Your task to perform on an android device: install app "Skype" Image 0: 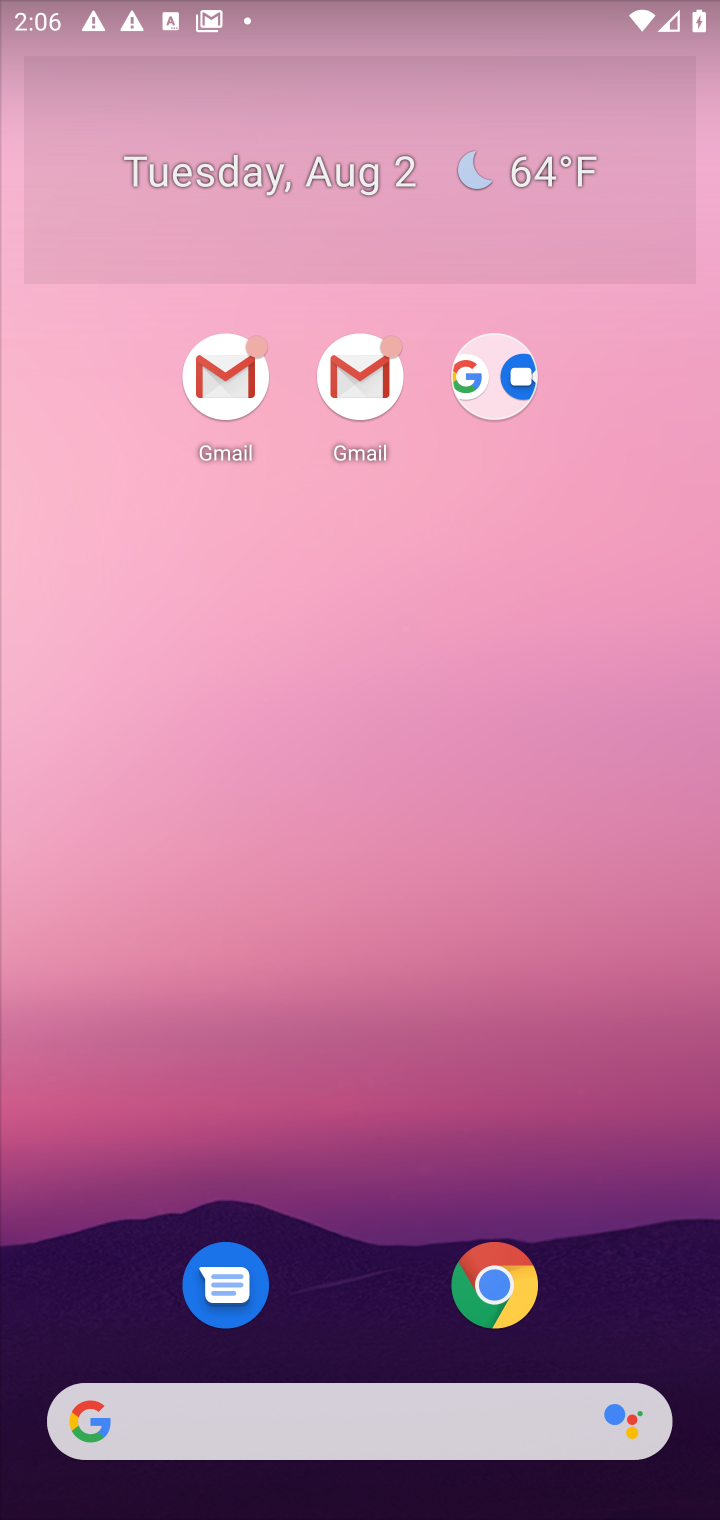
Step 0: drag from (546, 1130) to (555, 69)
Your task to perform on an android device: install app "Skype" Image 1: 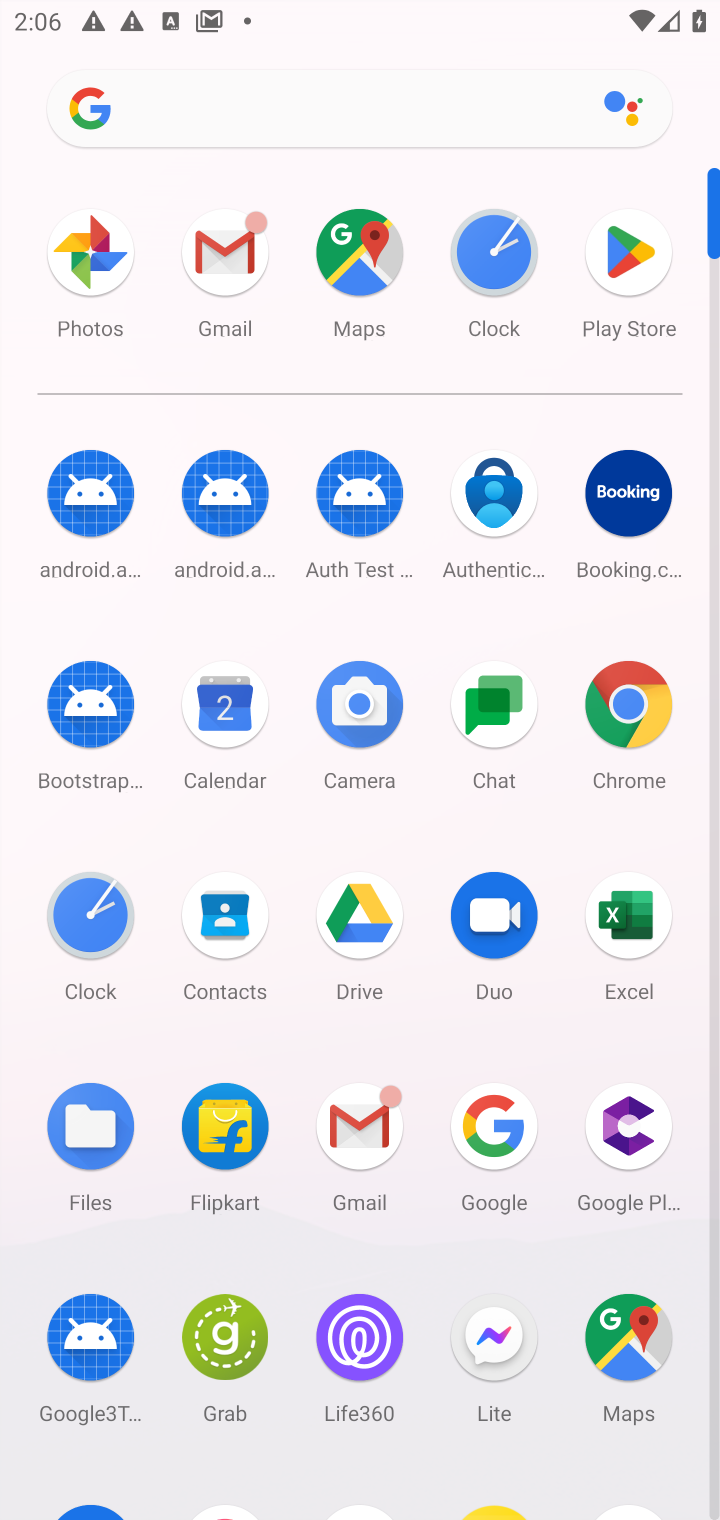
Step 1: drag from (434, 1176) to (428, 480)
Your task to perform on an android device: install app "Skype" Image 2: 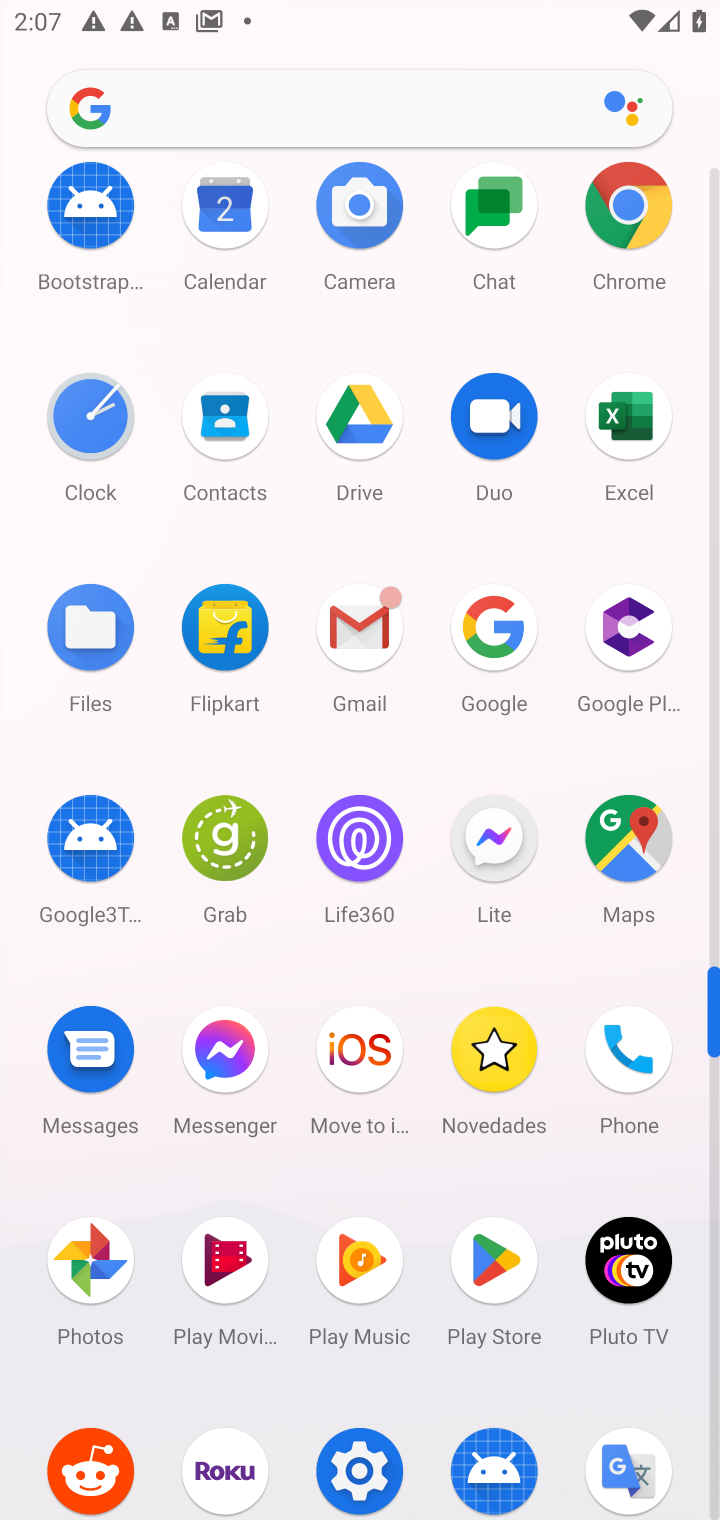
Step 2: click (508, 1250)
Your task to perform on an android device: install app "Skype" Image 3: 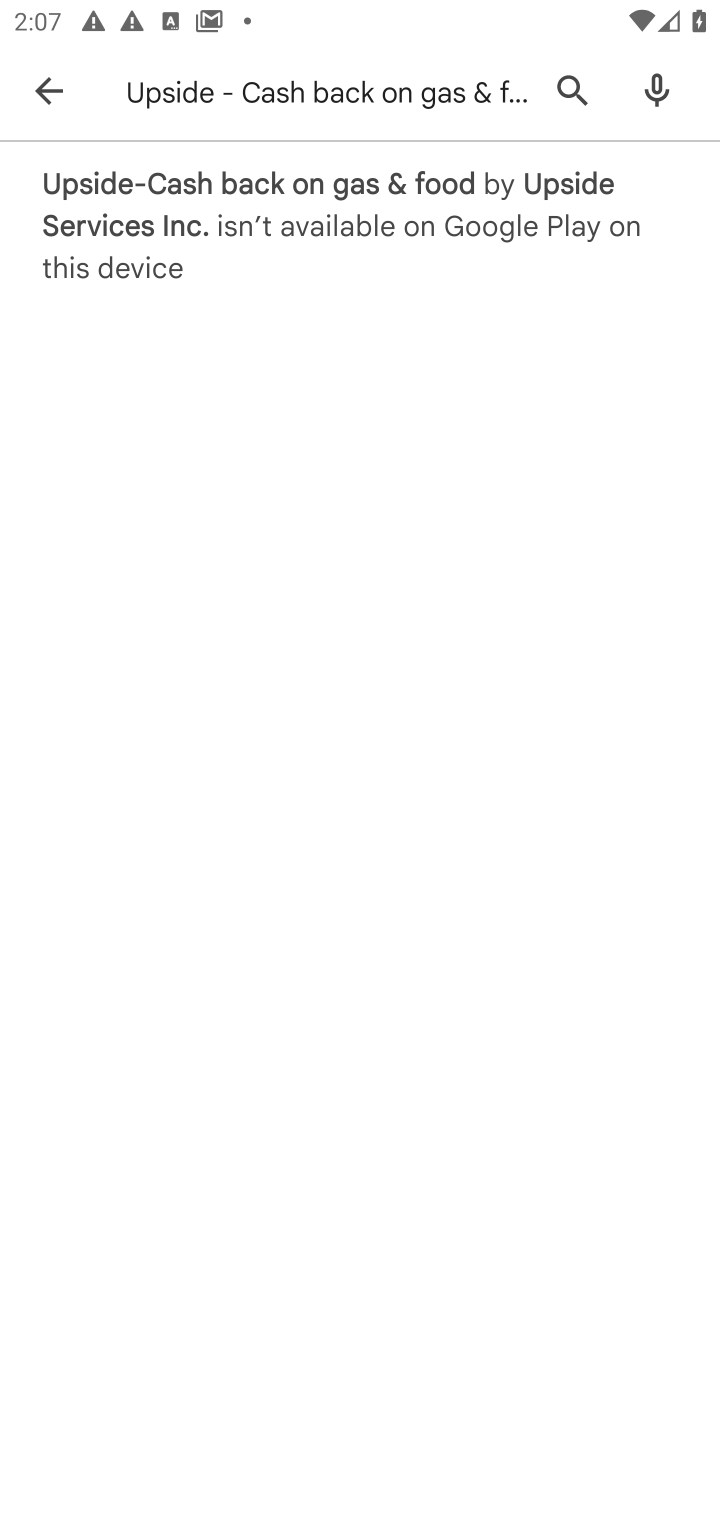
Step 3: click (311, 102)
Your task to perform on an android device: install app "Skype" Image 4: 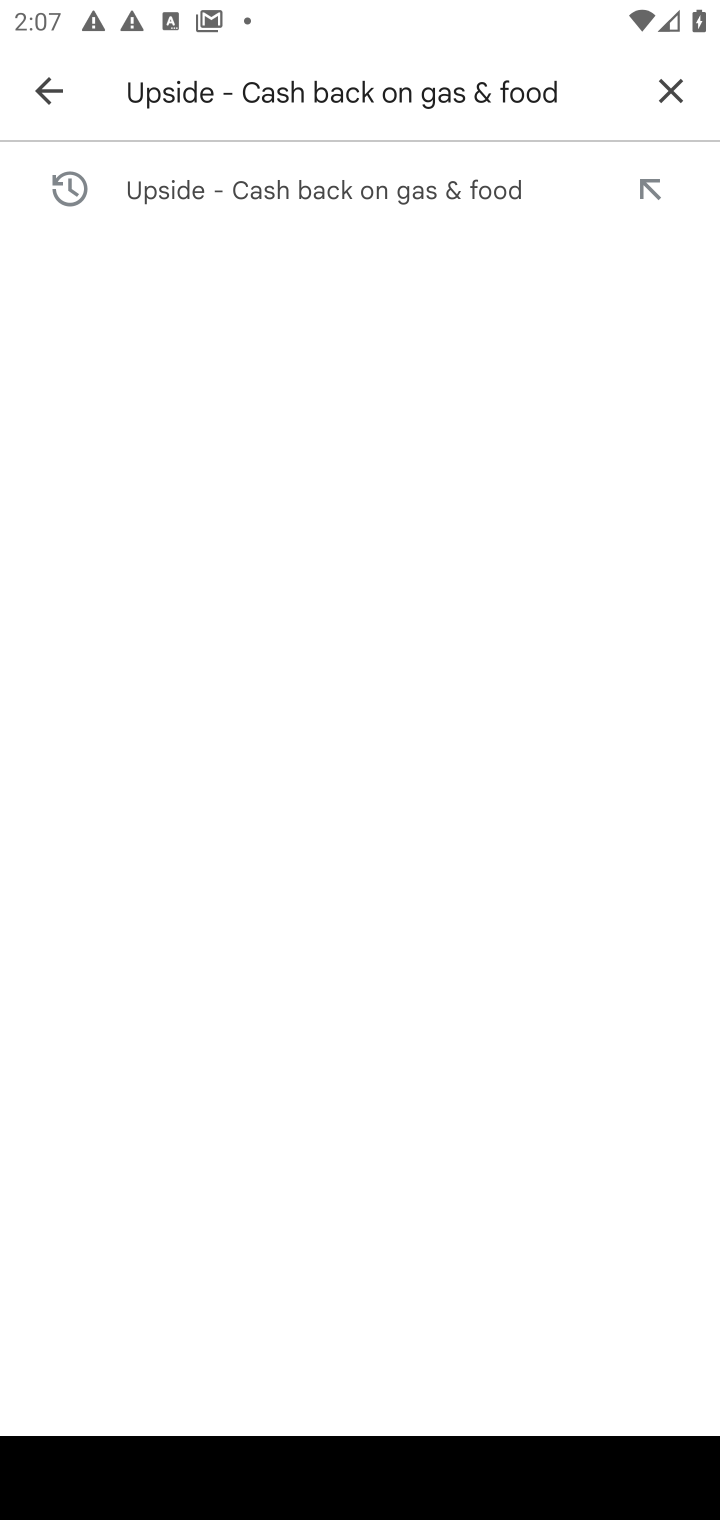
Step 4: click (679, 83)
Your task to perform on an android device: install app "Skype" Image 5: 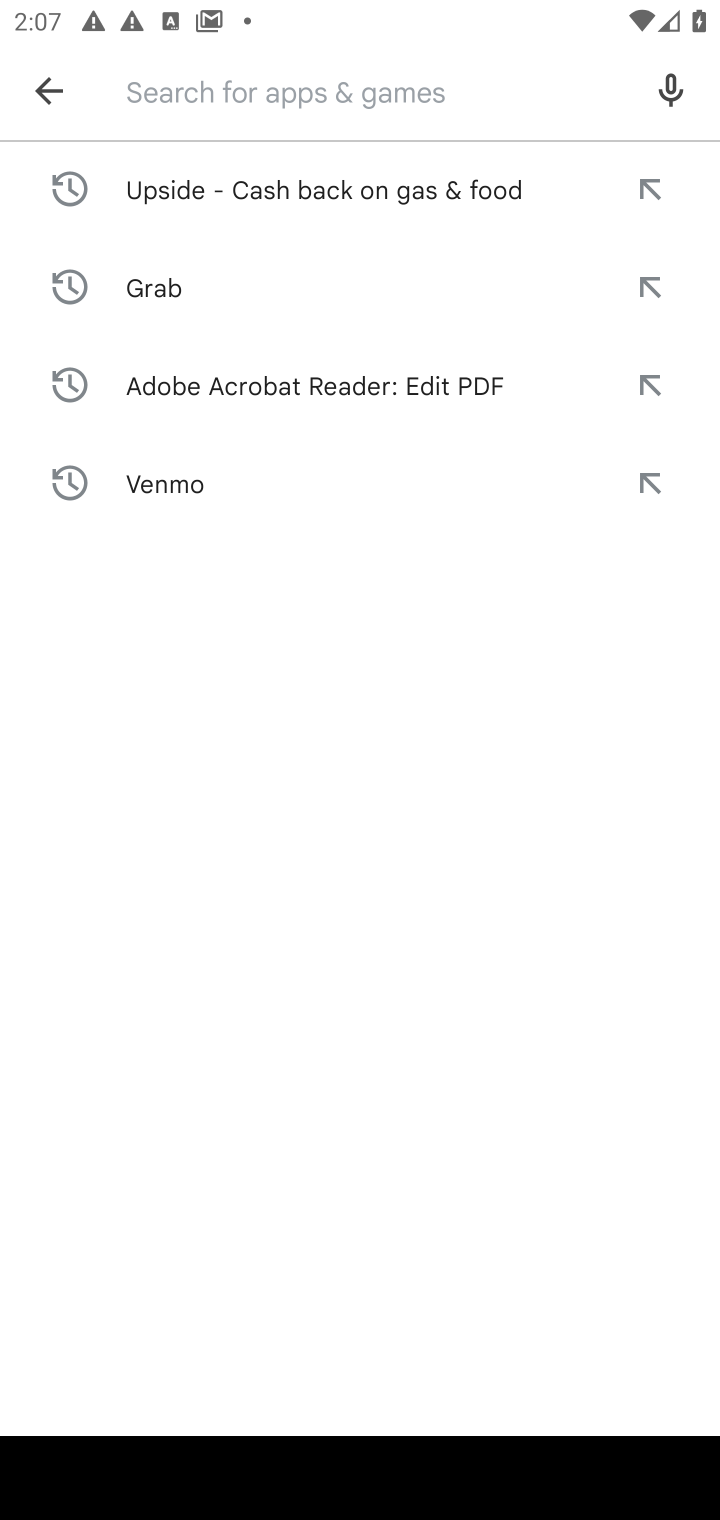
Step 5: type "Skype"
Your task to perform on an android device: install app "Skype" Image 6: 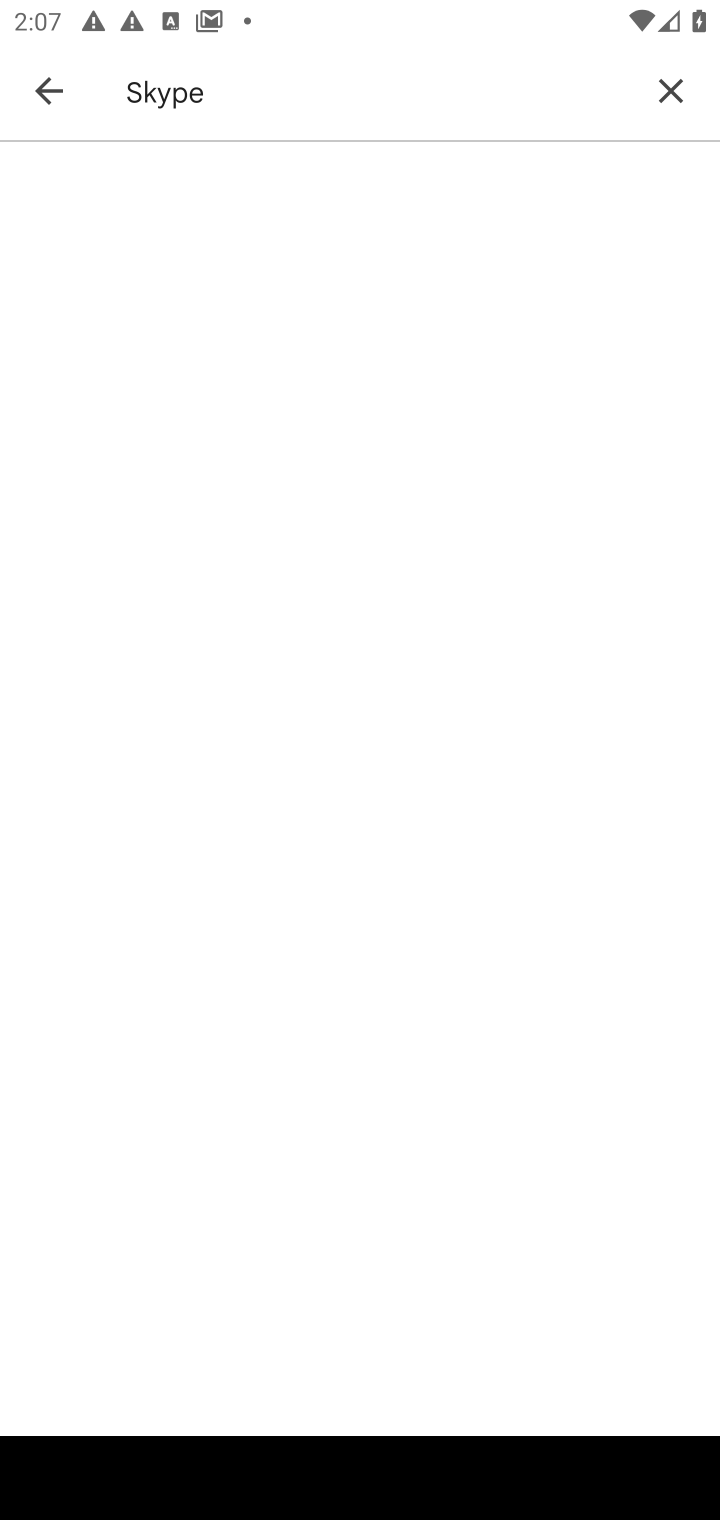
Step 6: press enter
Your task to perform on an android device: install app "Skype" Image 7: 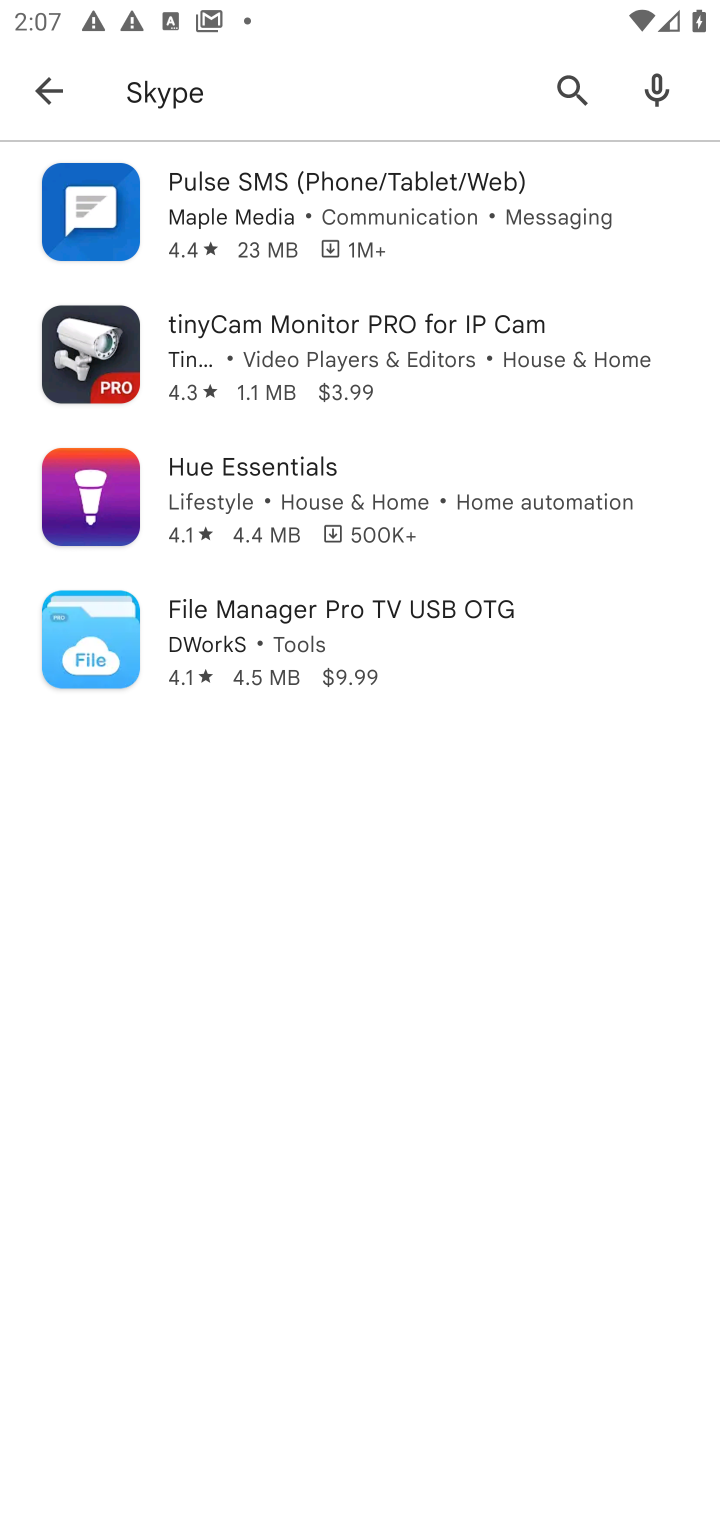
Step 7: task complete